Your task to perform on an android device: check google app version Image 0: 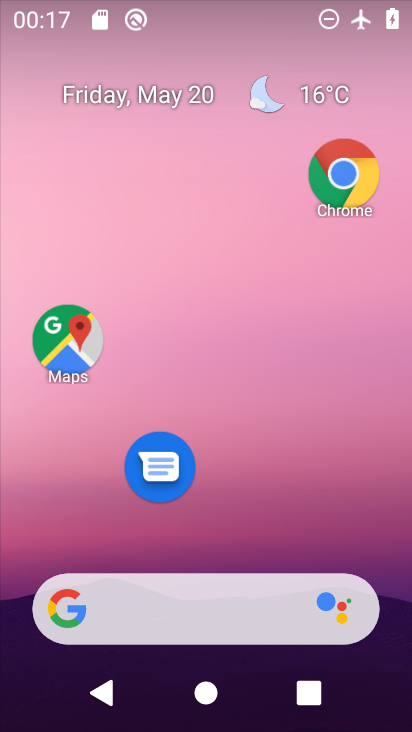
Step 0: drag from (306, 502) to (307, 207)
Your task to perform on an android device: check google app version Image 1: 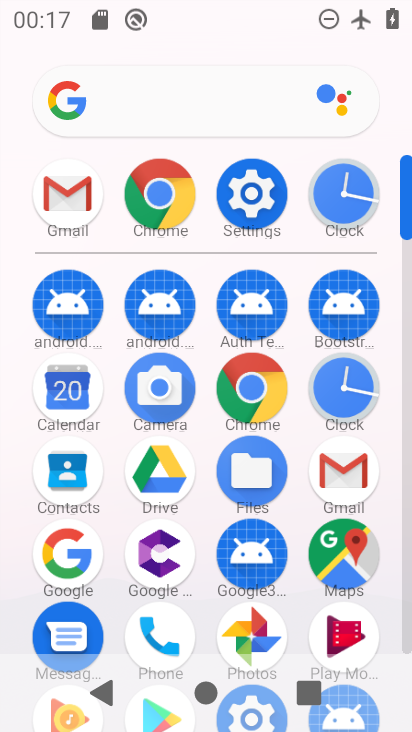
Step 1: click (70, 542)
Your task to perform on an android device: check google app version Image 2: 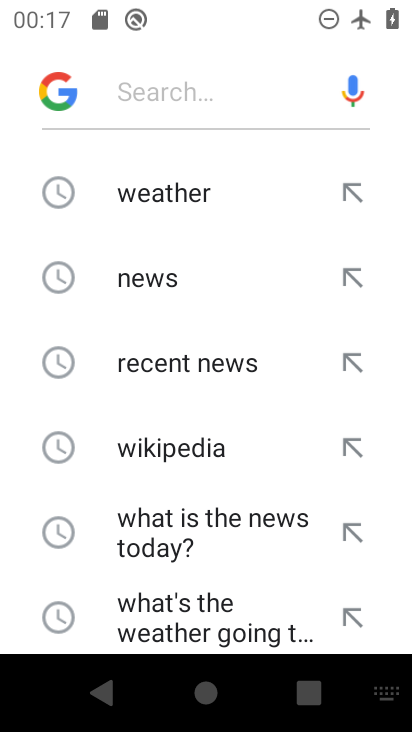
Step 2: press home button
Your task to perform on an android device: check google app version Image 3: 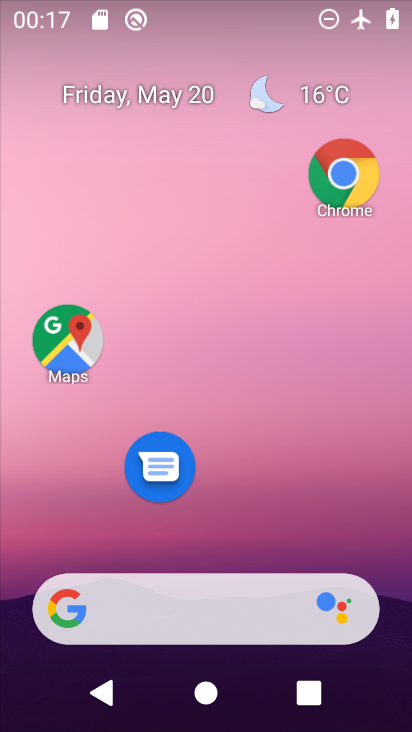
Step 3: drag from (275, 585) to (277, 316)
Your task to perform on an android device: check google app version Image 4: 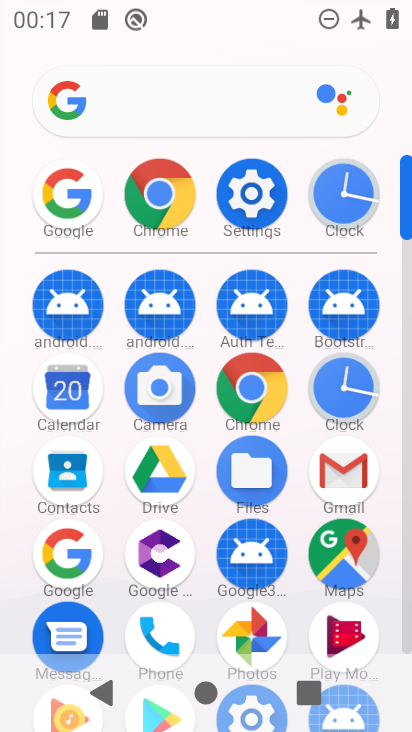
Step 4: click (72, 544)
Your task to perform on an android device: check google app version Image 5: 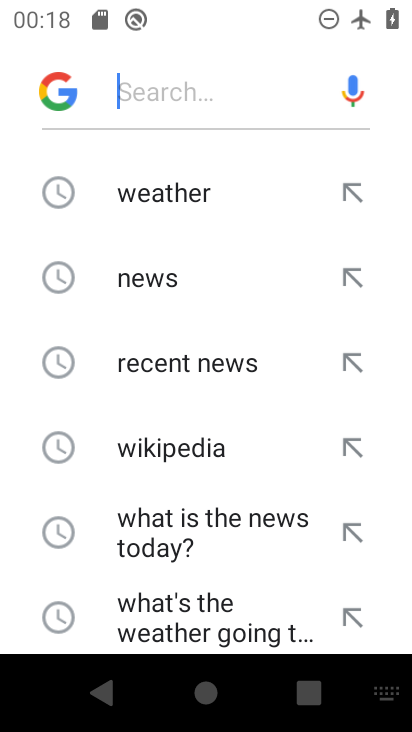
Step 5: click (61, 76)
Your task to perform on an android device: check google app version Image 6: 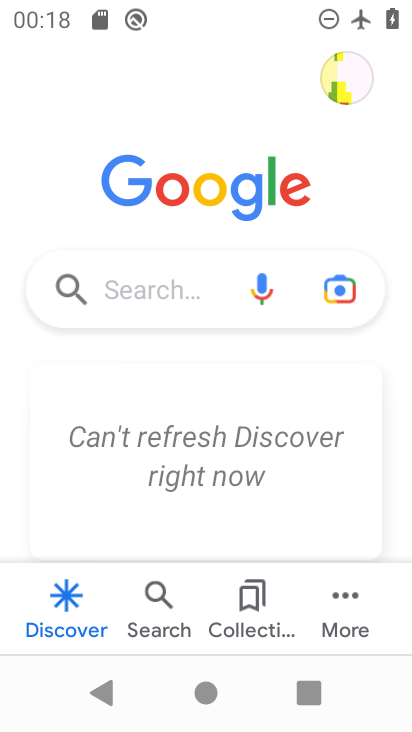
Step 6: click (351, 613)
Your task to perform on an android device: check google app version Image 7: 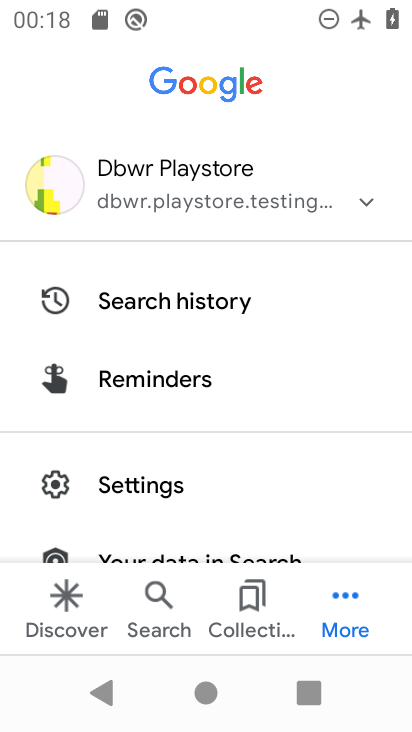
Step 7: click (171, 471)
Your task to perform on an android device: check google app version Image 8: 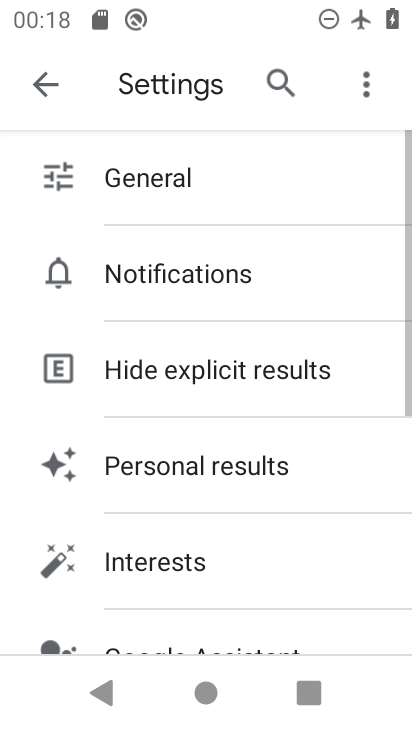
Step 8: drag from (154, 562) to (180, 234)
Your task to perform on an android device: check google app version Image 9: 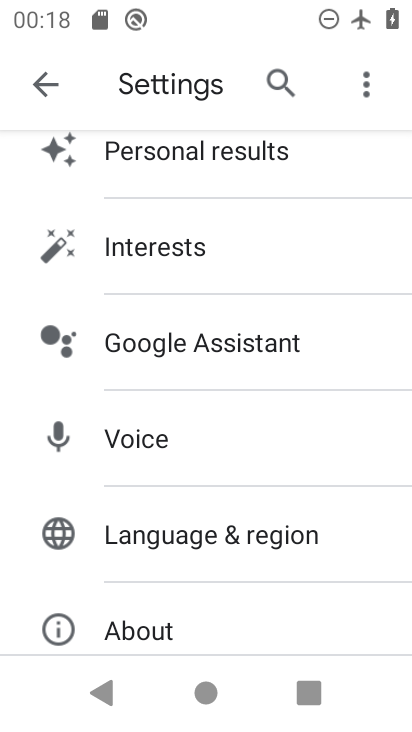
Step 9: click (128, 616)
Your task to perform on an android device: check google app version Image 10: 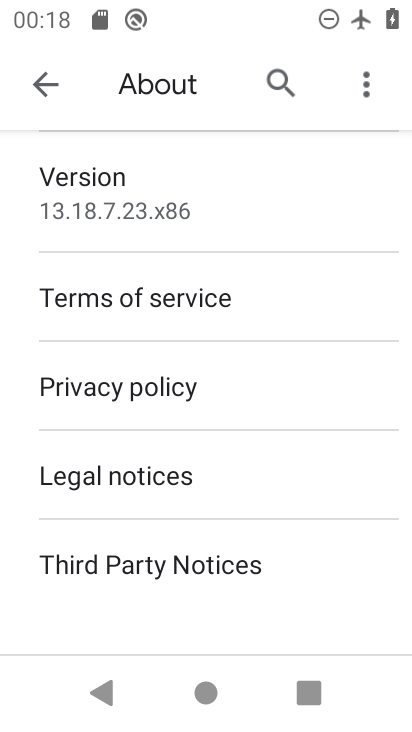
Step 10: task complete